Your task to perform on an android device: clear history in the chrome app Image 0: 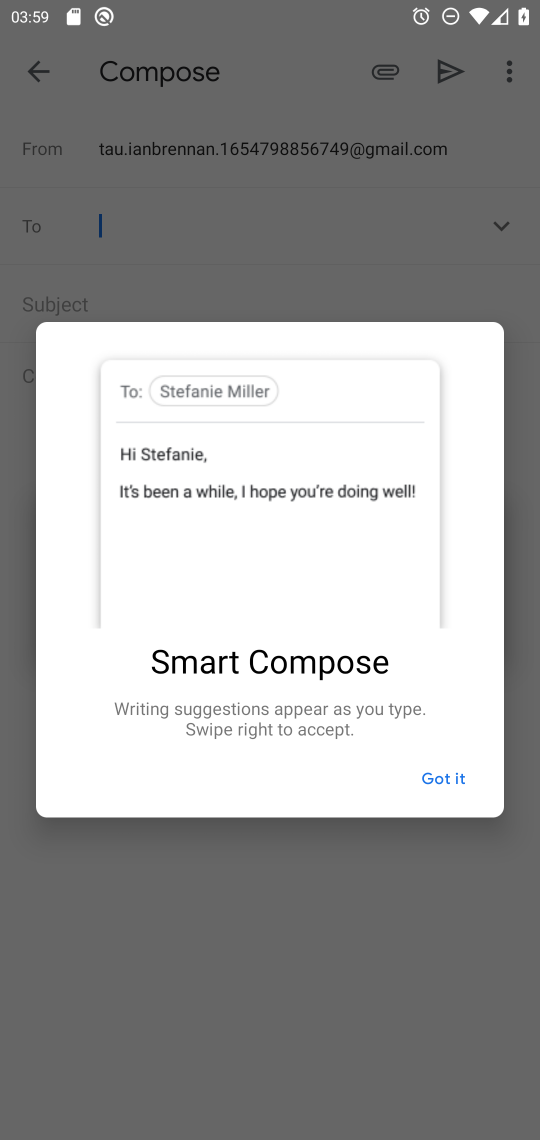
Step 0: press home button
Your task to perform on an android device: clear history in the chrome app Image 1: 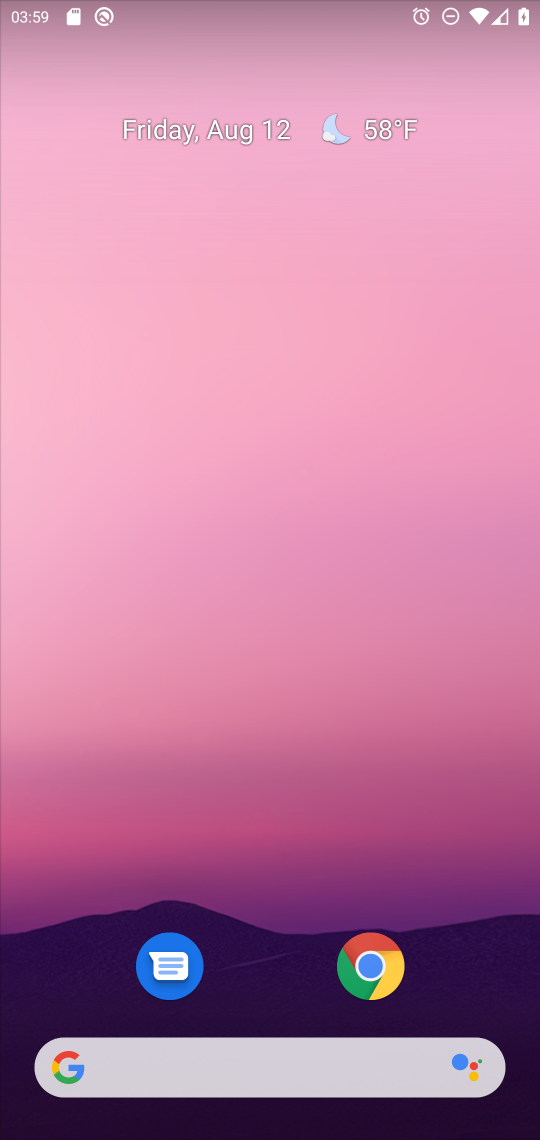
Step 1: drag from (244, 849) to (326, 116)
Your task to perform on an android device: clear history in the chrome app Image 2: 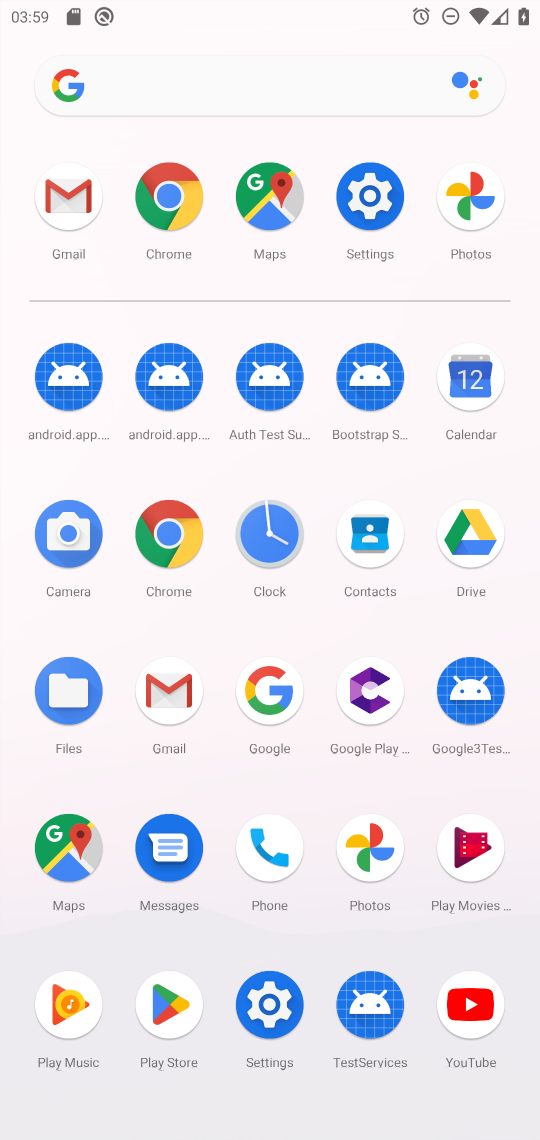
Step 2: click (169, 530)
Your task to perform on an android device: clear history in the chrome app Image 3: 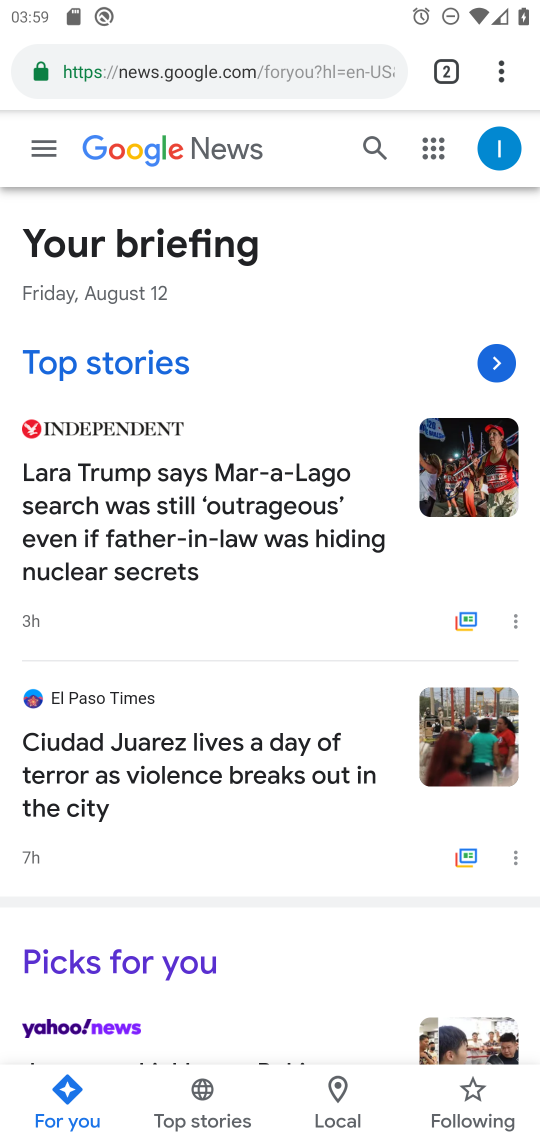
Step 3: drag from (489, 57) to (317, 395)
Your task to perform on an android device: clear history in the chrome app Image 4: 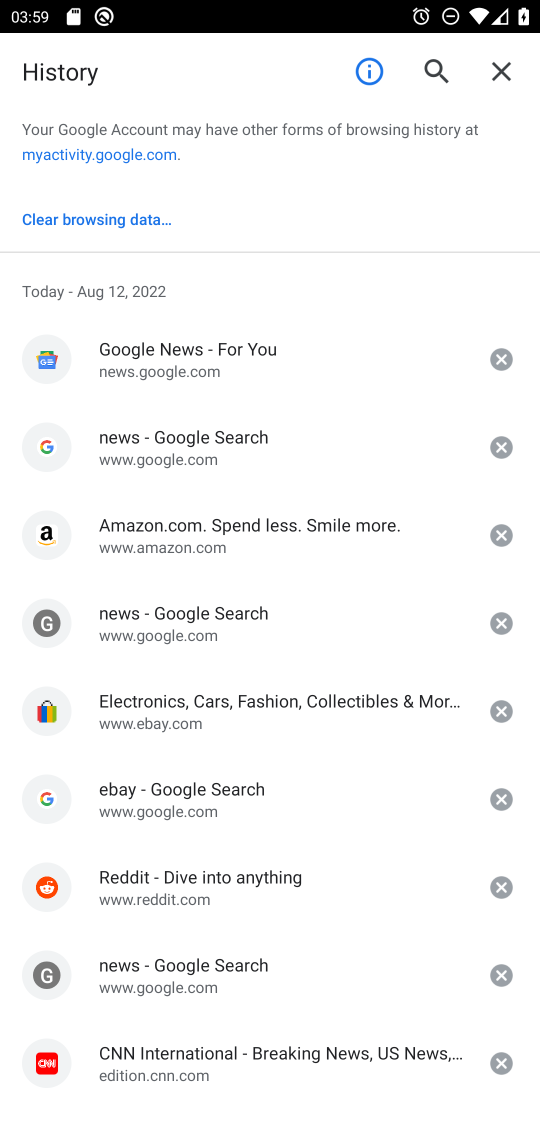
Step 4: click (39, 215)
Your task to perform on an android device: clear history in the chrome app Image 5: 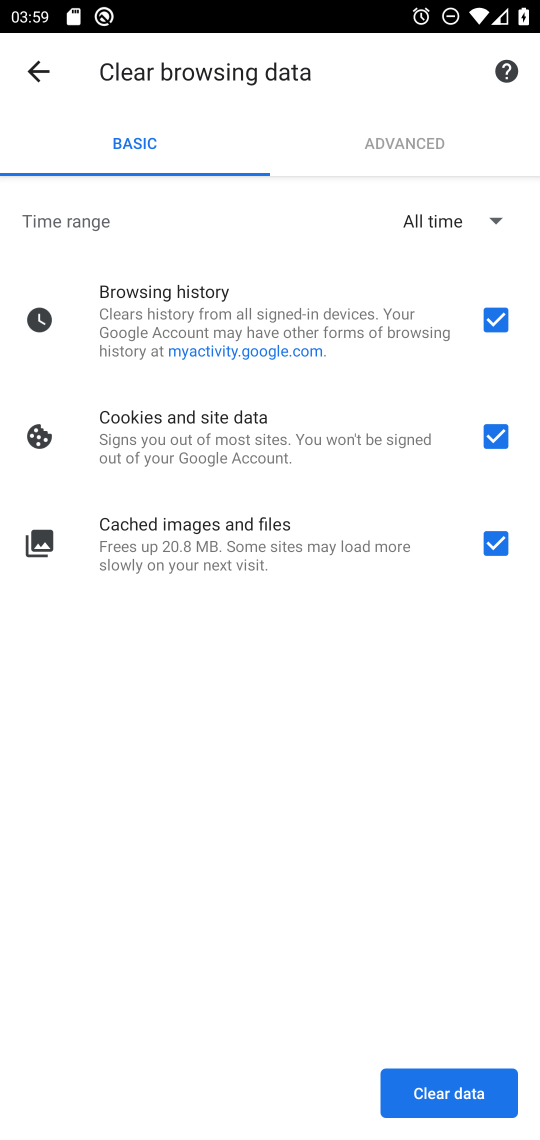
Step 5: click (476, 1097)
Your task to perform on an android device: clear history in the chrome app Image 6: 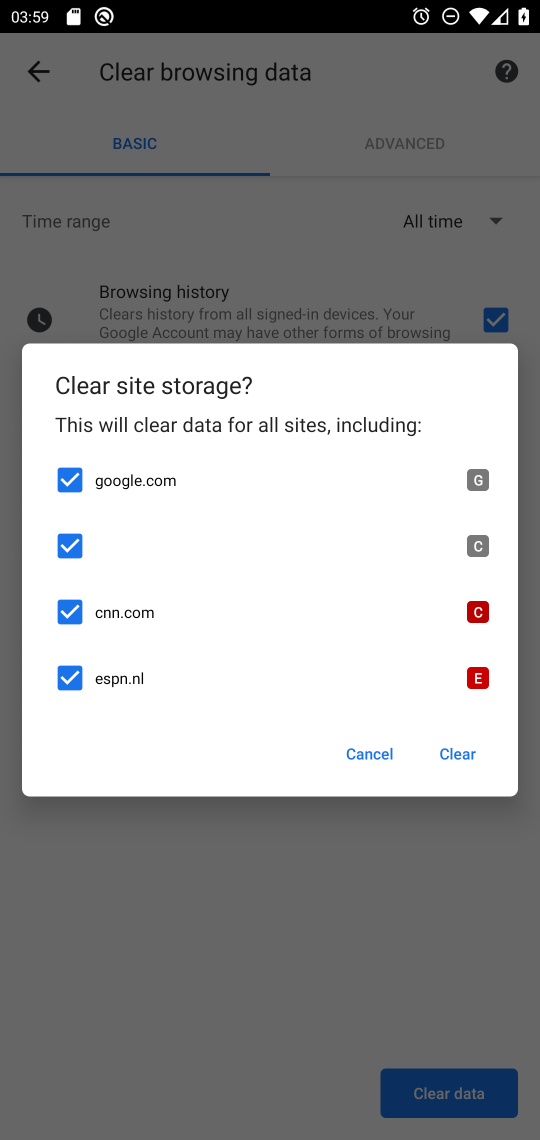
Step 6: click (469, 751)
Your task to perform on an android device: clear history in the chrome app Image 7: 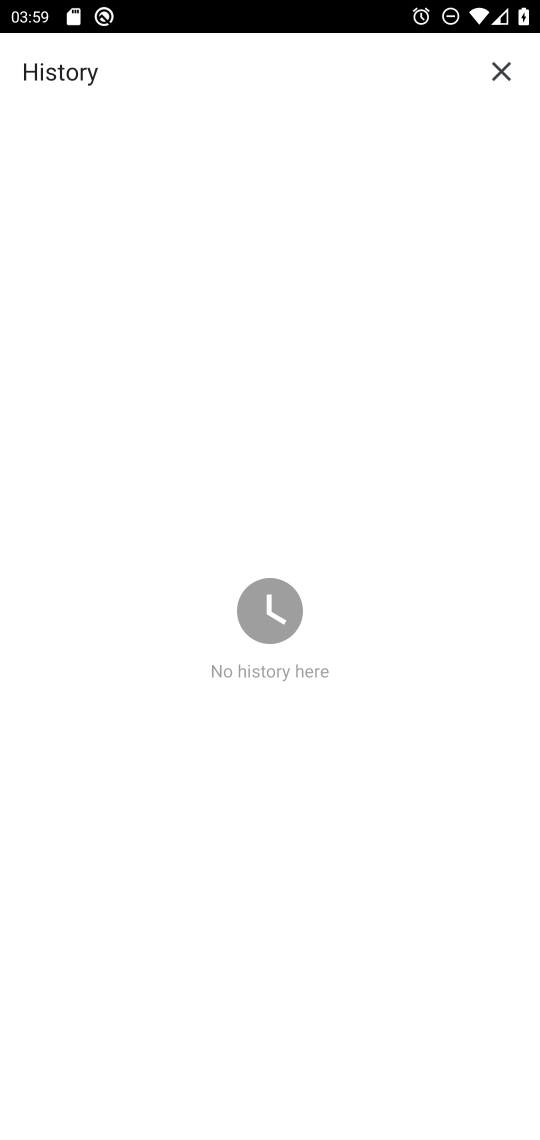
Step 7: task complete